Your task to perform on an android device: turn on the 12-hour format for clock Image 0: 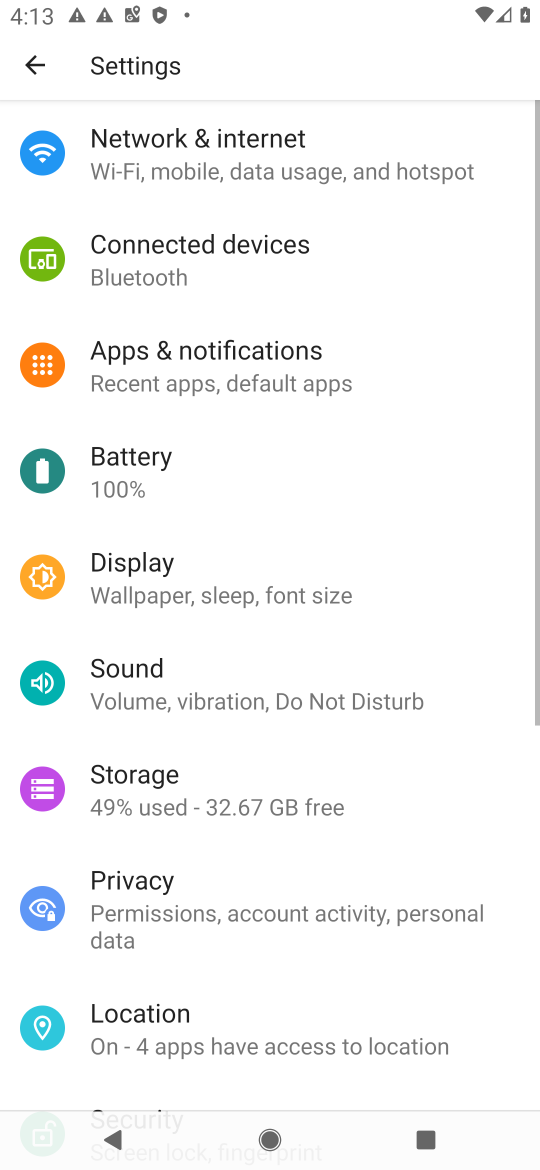
Step 0: press home button
Your task to perform on an android device: turn on the 12-hour format for clock Image 1: 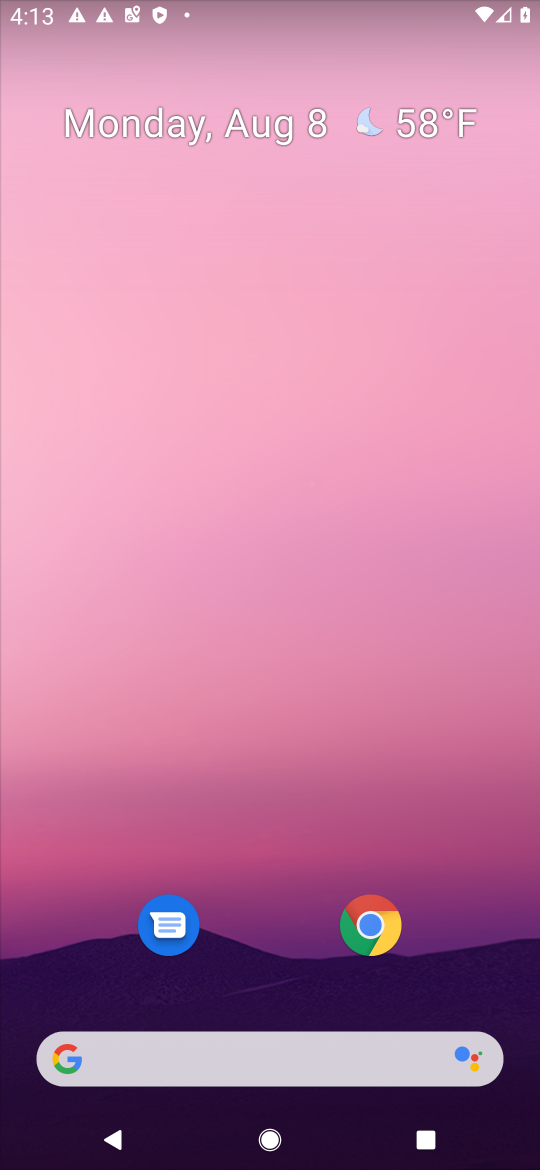
Step 1: drag from (258, 1011) to (258, 214)
Your task to perform on an android device: turn on the 12-hour format for clock Image 2: 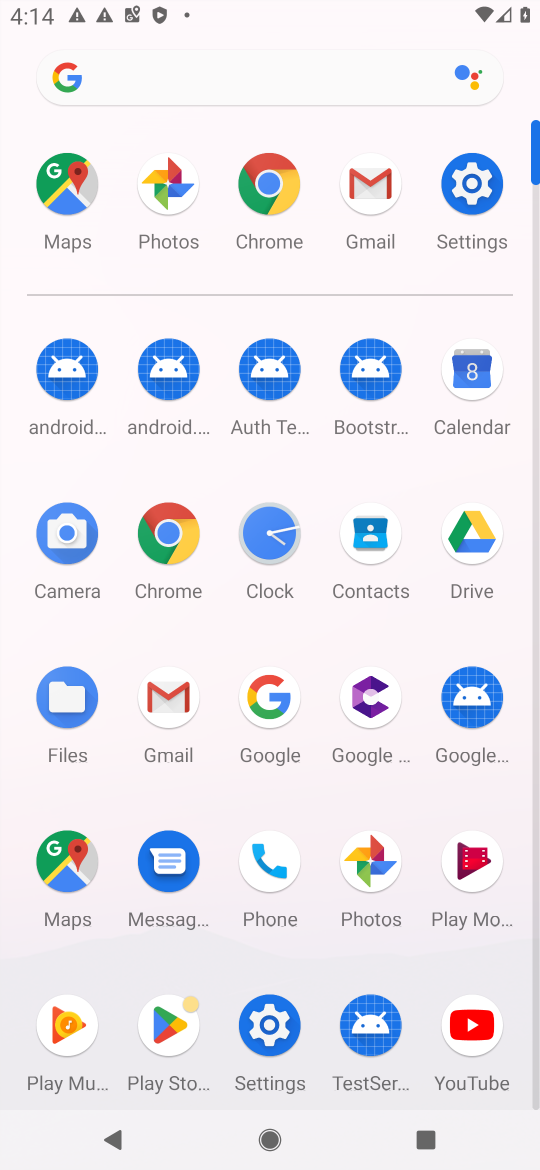
Step 2: click (272, 533)
Your task to perform on an android device: turn on the 12-hour format for clock Image 3: 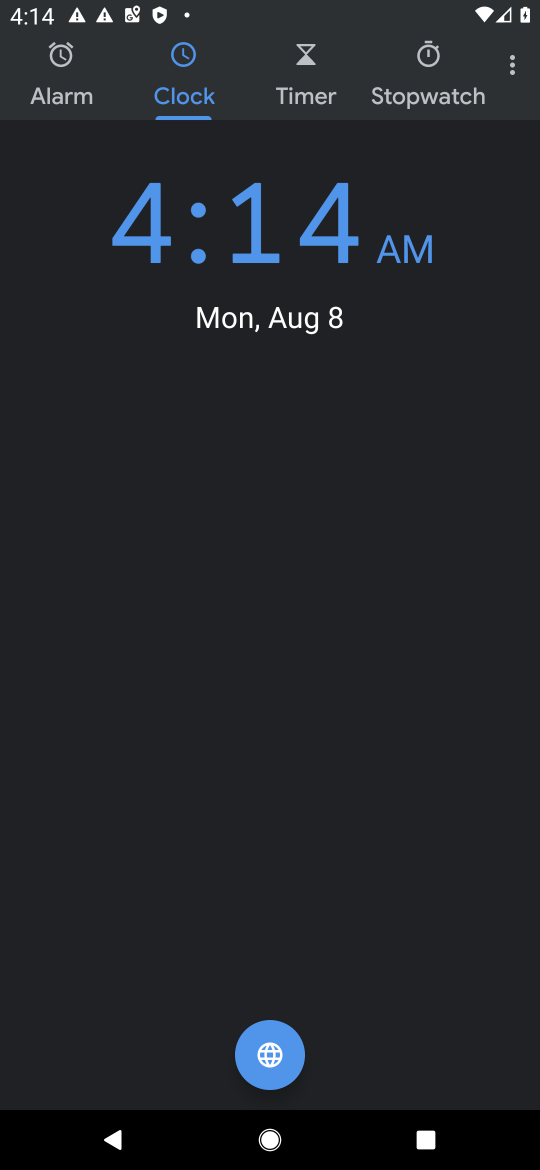
Step 3: click (508, 67)
Your task to perform on an android device: turn on the 12-hour format for clock Image 4: 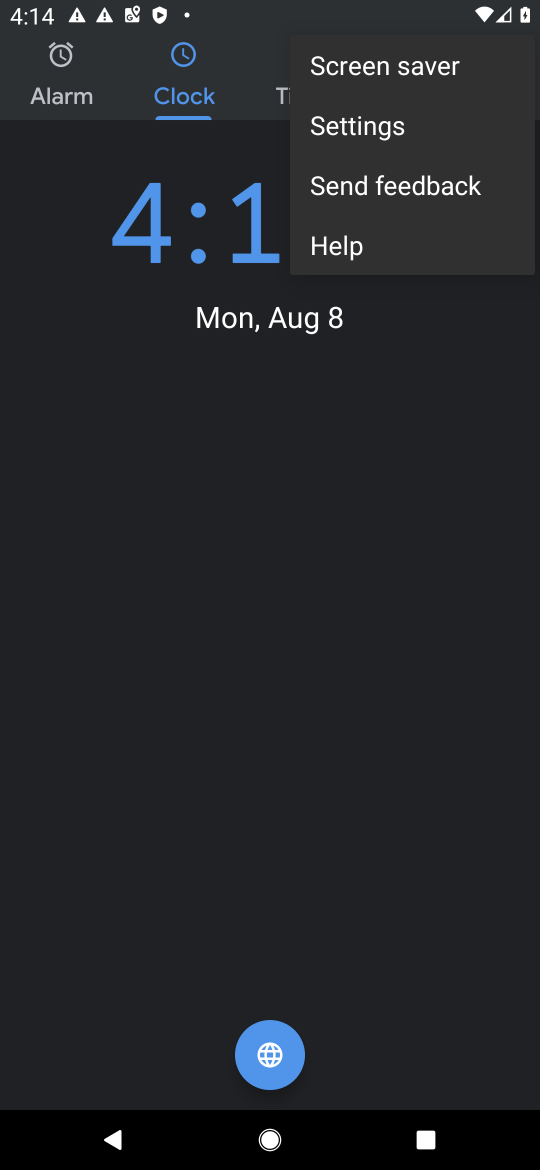
Step 4: click (365, 123)
Your task to perform on an android device: turn on the 12-hour format for clock Image 5: 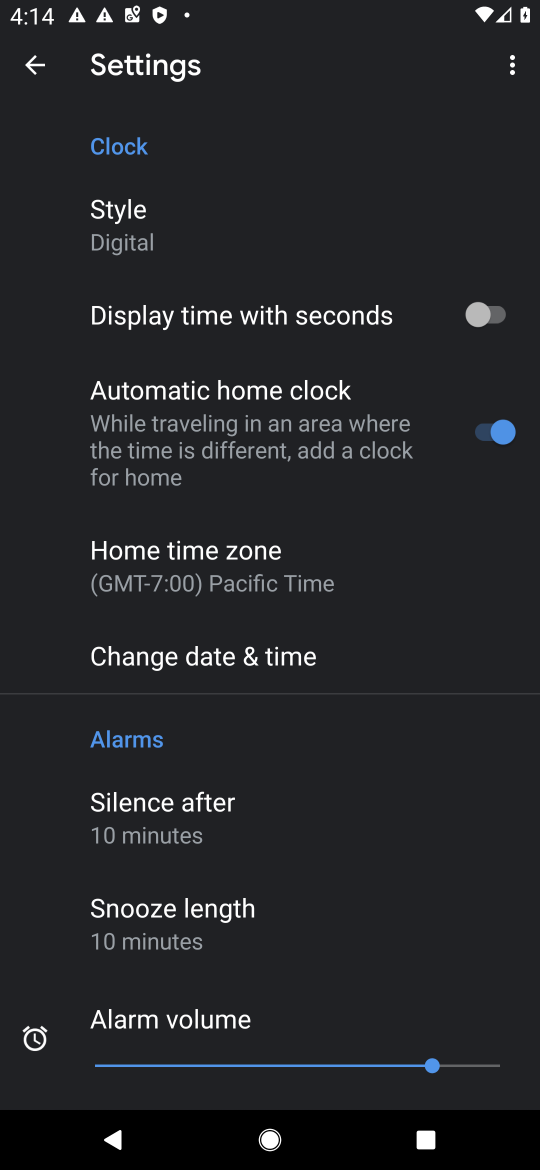
Step 5: click (246, 662)
Your task to perform on an android device: turn on the 12-hour format for clock Image 6: 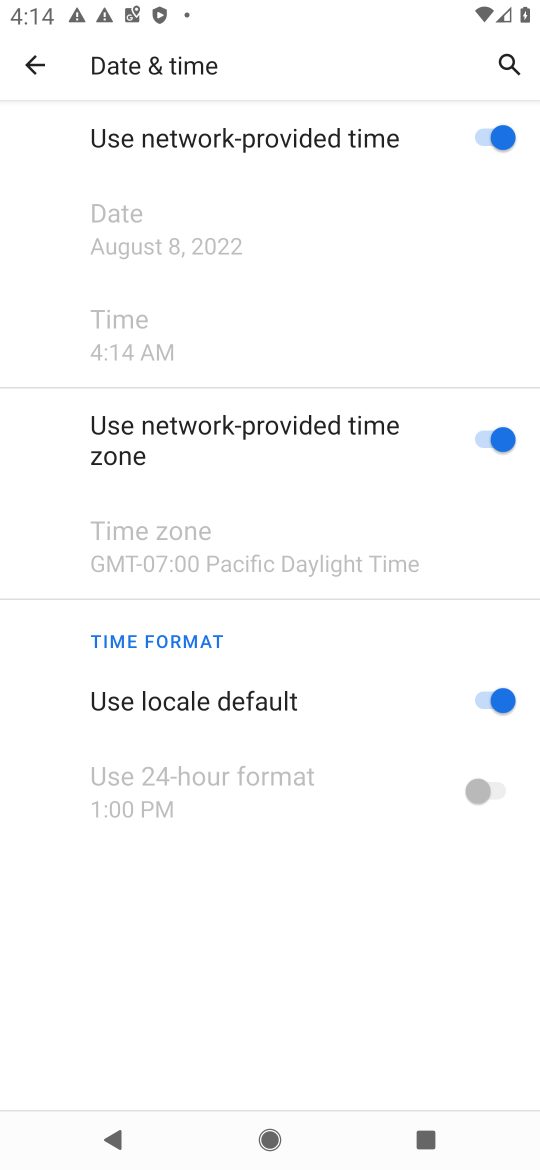
Step 6: task complete